Your task to perform on an android device: Search for Mexican restaurants on Maps Image 0: 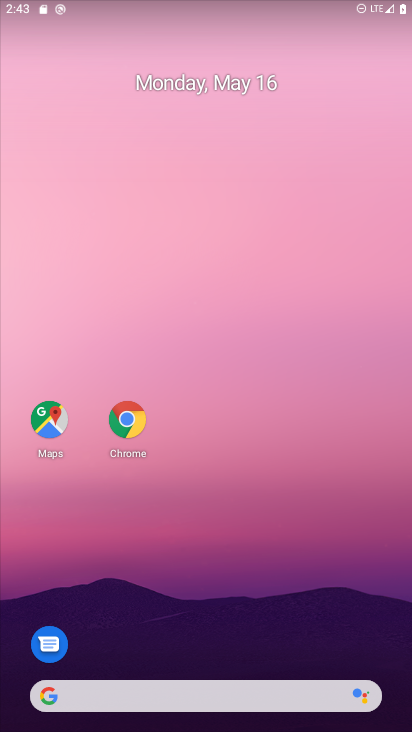
Step 0: drag from (189, 563) to (240, 170)
Your task to perform on an android device: Search for Mexican restaurants on Maps Image 1: 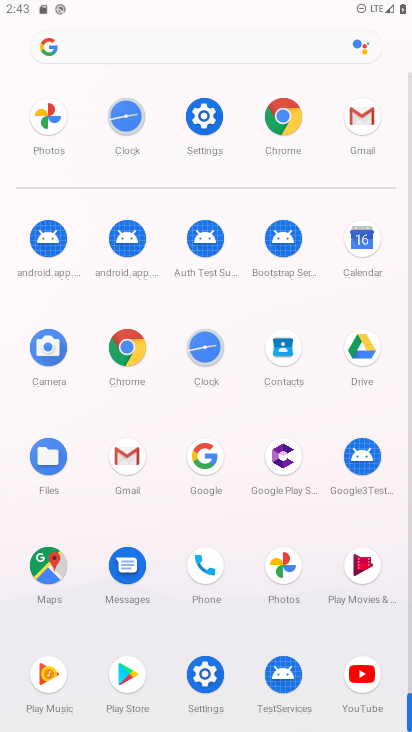
Step 1: click (44, 587)
Your task to perform on an android device: Search for Mexican restaurants on Maps Image 2: 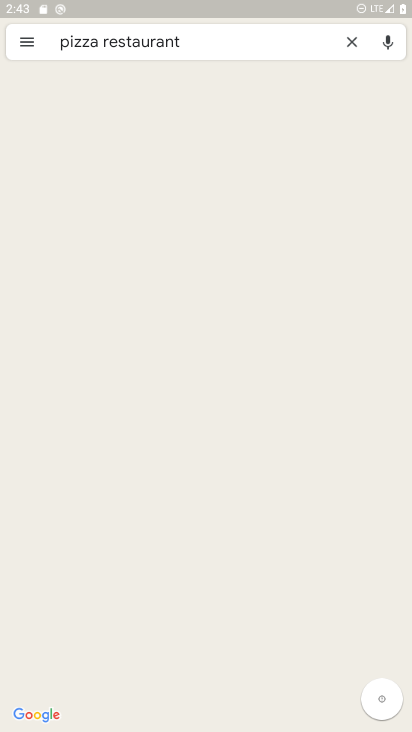
Step 2: drag from (210, 587) to (207, 5)
Your task to perform on an android device: Search for Mexican restaurants on Maps Image 3: 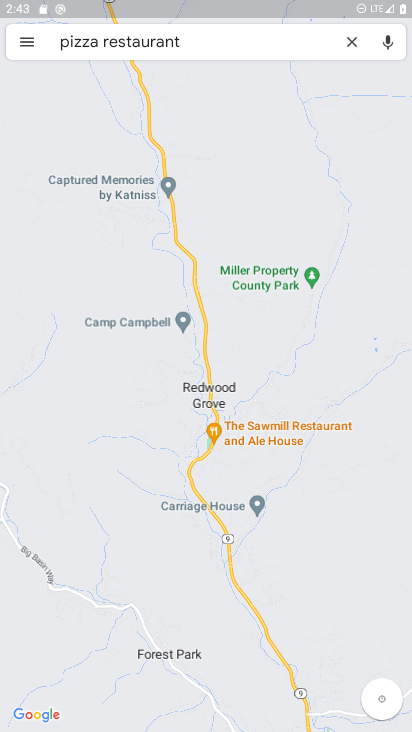
Step 3: click (342, 41)
Your task to perform on an android device: Search for Mexican restaurants on Maps Image 4: 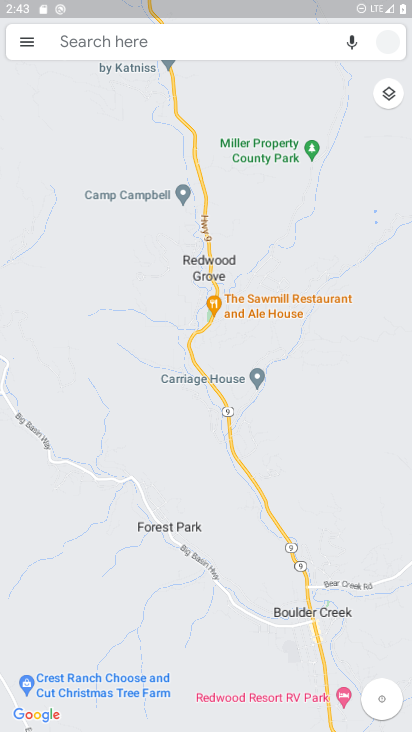
Step 4: click (162, 44)
Your task to perform on an android device: Search for Mexican restaurants on Maps Image 5: 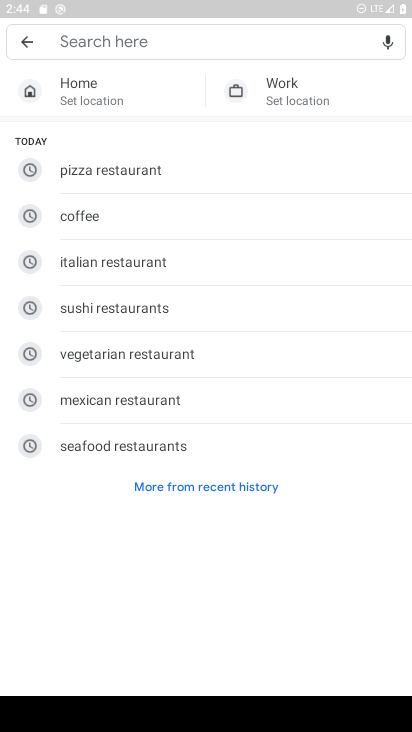
Step 5: click (133, 408)
Your task to perform on an android device: Search for Mexican restaurants on Maps Image 6: 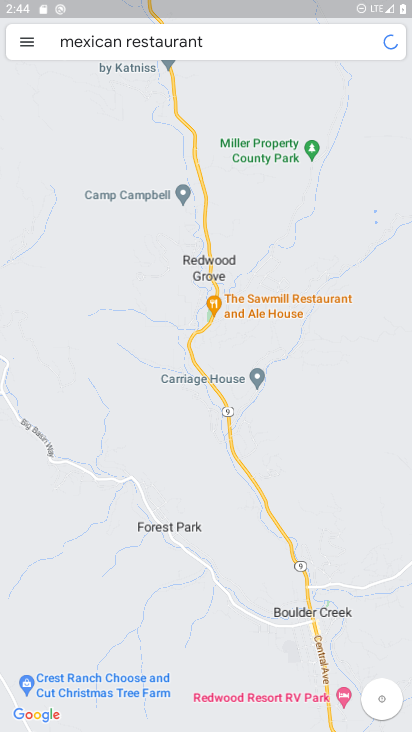
Step 6: task complete